Your task to perform on an android device: allow cookies in the chrome app Image 0: 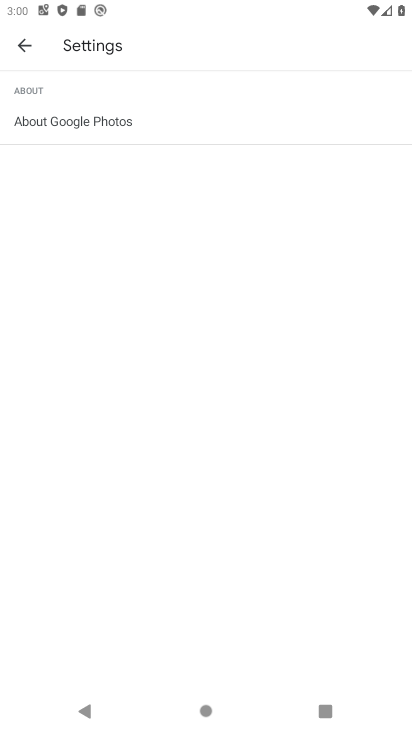
Step 0: press home button
Your task to perform on an android device: allow cookies in the chrome app Image 1: 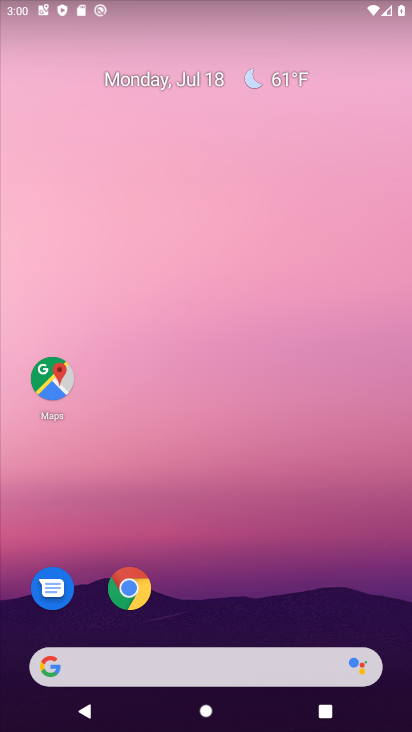
Step 1: drag from (248, 621) to (304, 151)
Your task to perform on an android device: allow cookies in the chrome app Image 2: 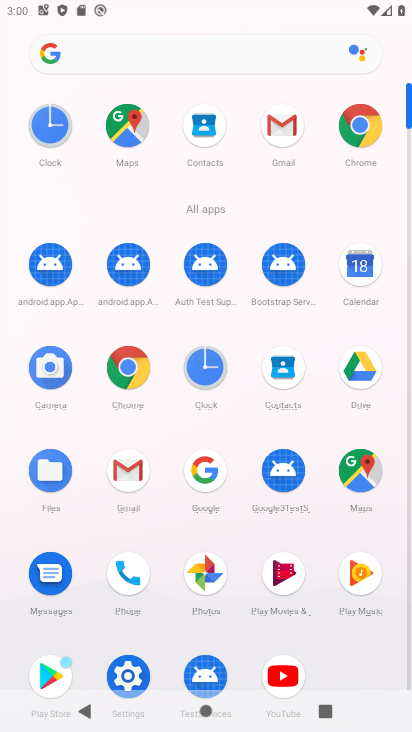
Step 2: click (356, 117)
Your task to perform on an android device: allow cookies in the chrome app Image 3: 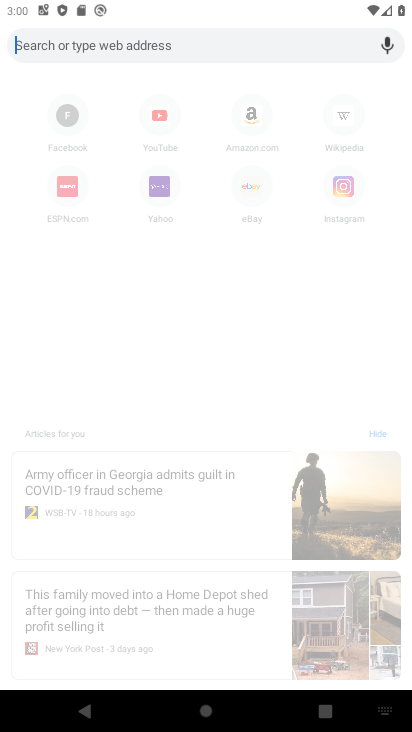
Step 3: press back button
Your task to perform on an android device: allow cookies in the chrome app Image 4: 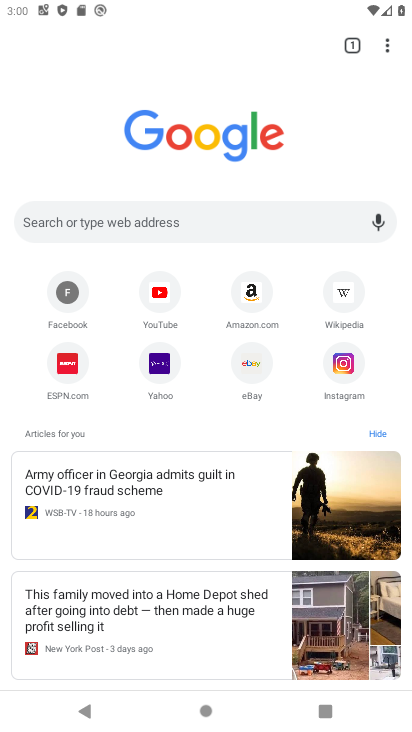
Step 4: click (386, 44)
Your task to perform on an android device: allow cookies in the chrome app Image 5: 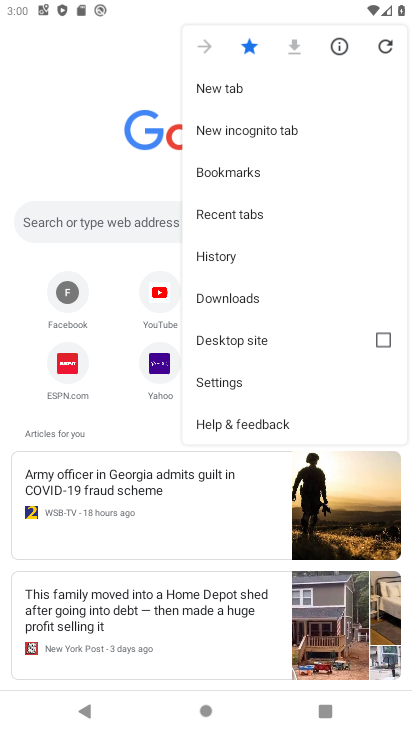
Step 5: click (259, 374)
Your task to perform on an android device: allow cookies in the chrome app Image 6: 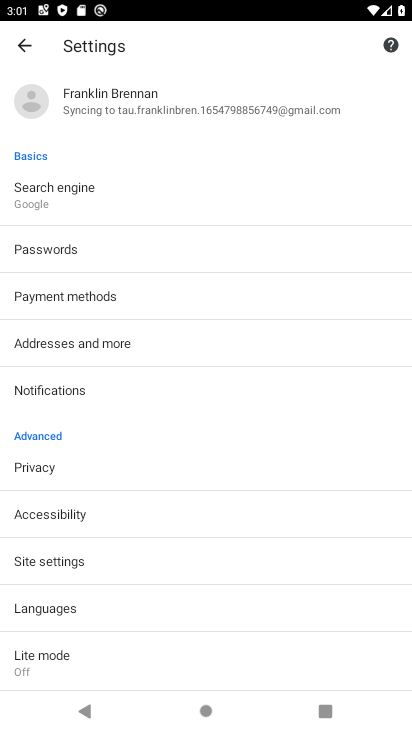
Step 6: click (163, 547)
Your task to perform on an android device: allow cookies in the chrome app Image 7: 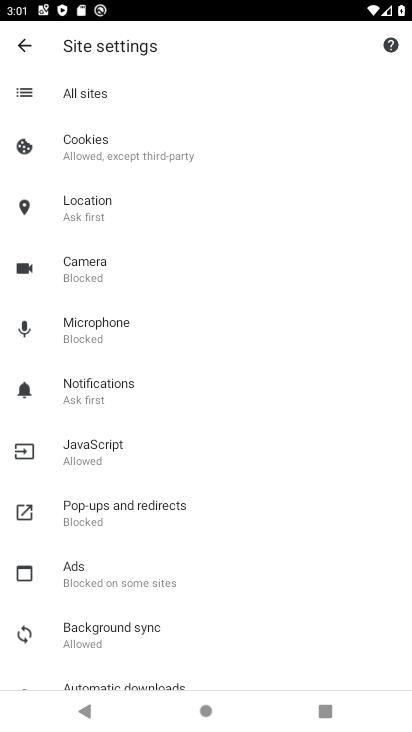
Step 7: click (112, 153)
Your task to perform on an android device: allow cookies in the chrome app Image 8: 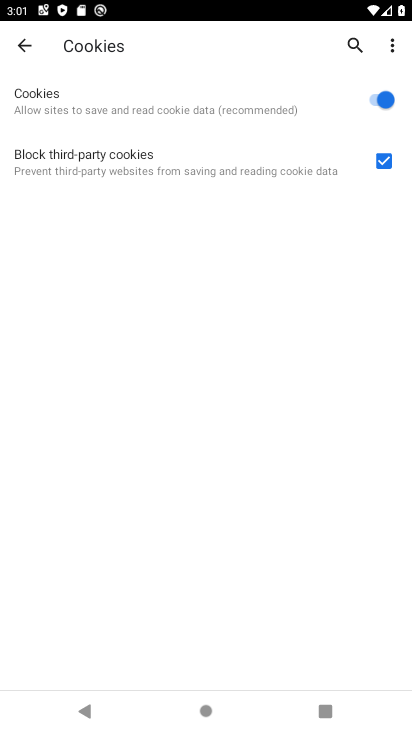
Step 8: task complete